Your task to perform on an android device: check out phone information Image 0: 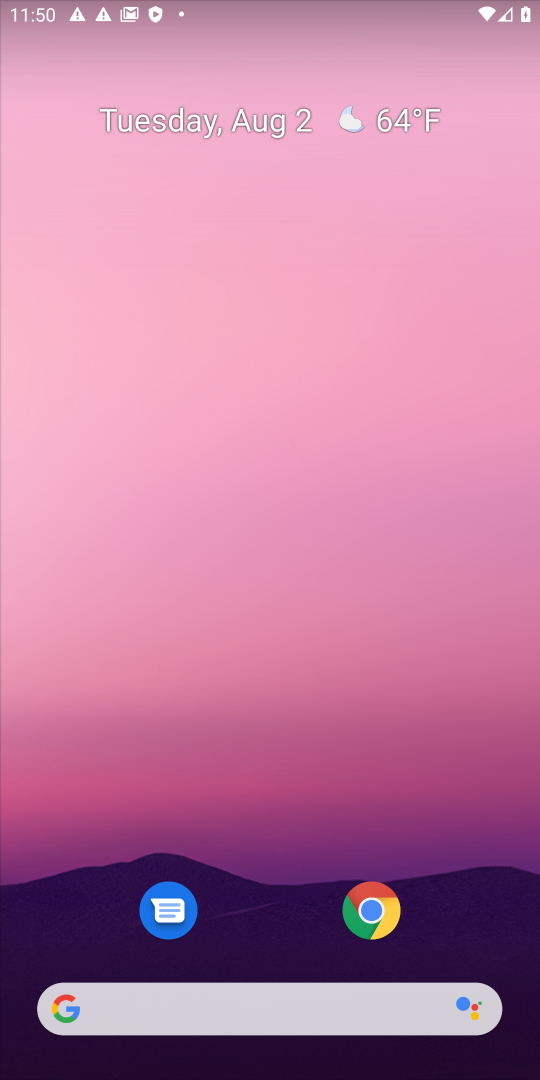
Step 0: drag from (275, 828) to (290, 32)
Your task to perform on an android device: check out phone information Image 1: 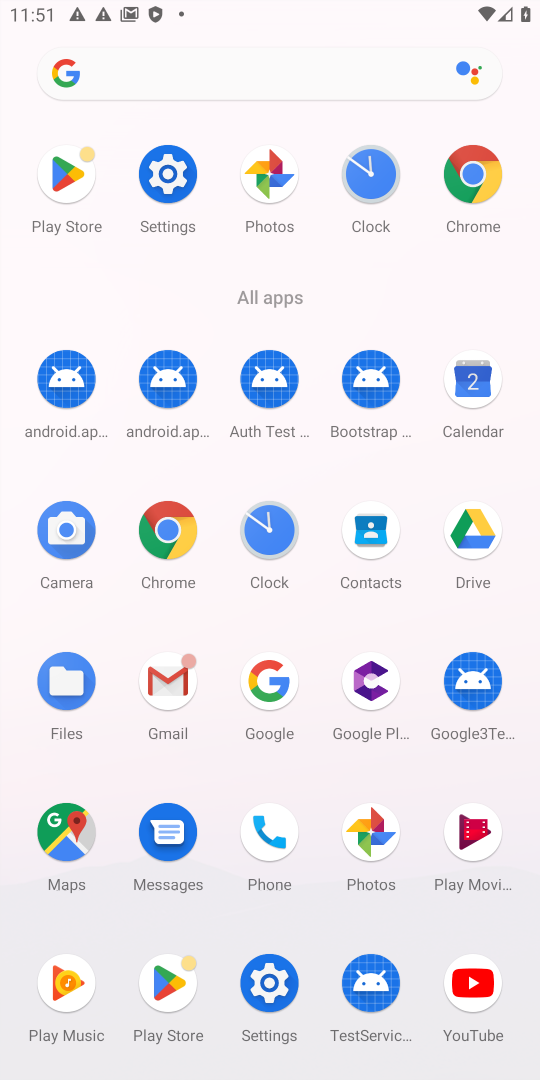
Step 1: click (158, 191)
Your task to perform on an android device: check out phone information Image 2: 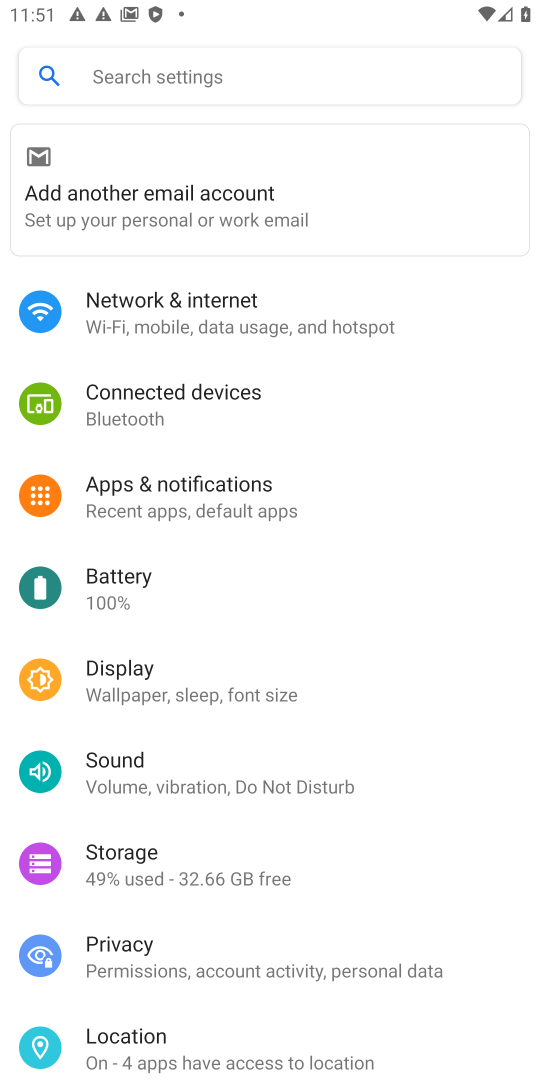
Step 2: drag from (500, 951) to (449, 222)
Your task to perform on an android device: check out phone information Image 3: 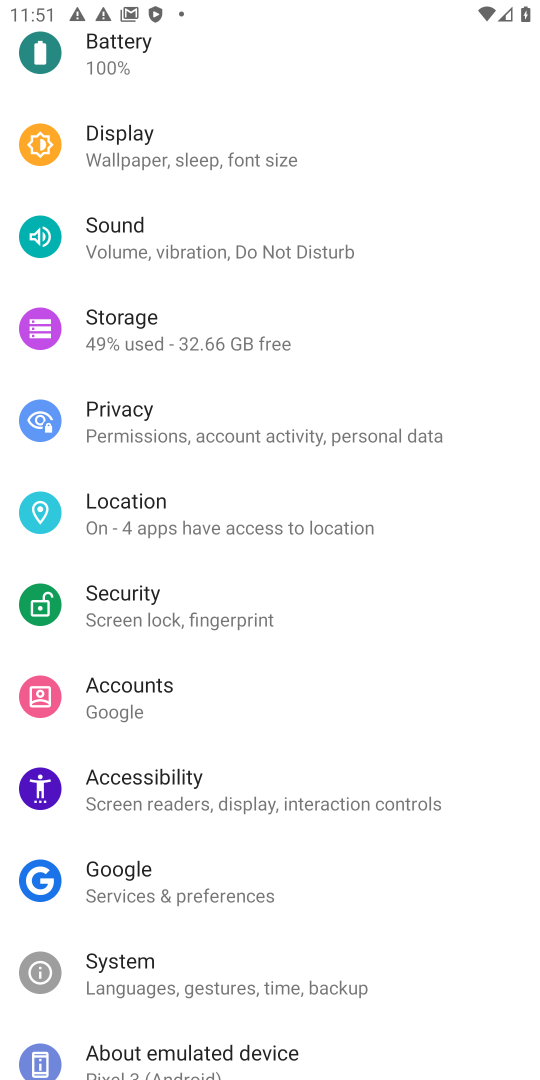
Step 3: drag from (515, 946) to (507, 647)
Your task to perform on an android device: check out phone information Image 4: 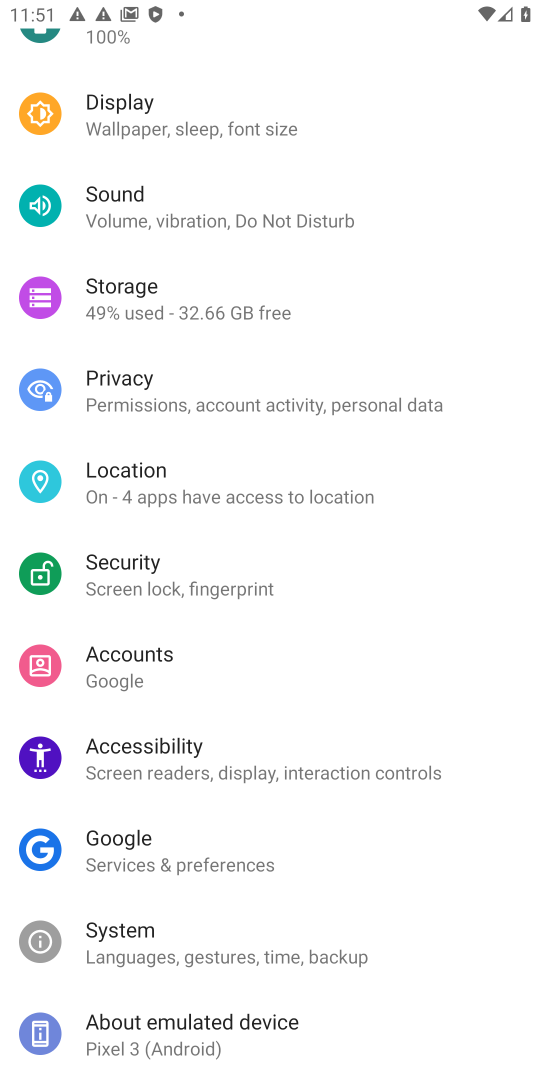
Step 4: click (204, 1033)
Your task to perform on an android device: check out phone information Image 5: 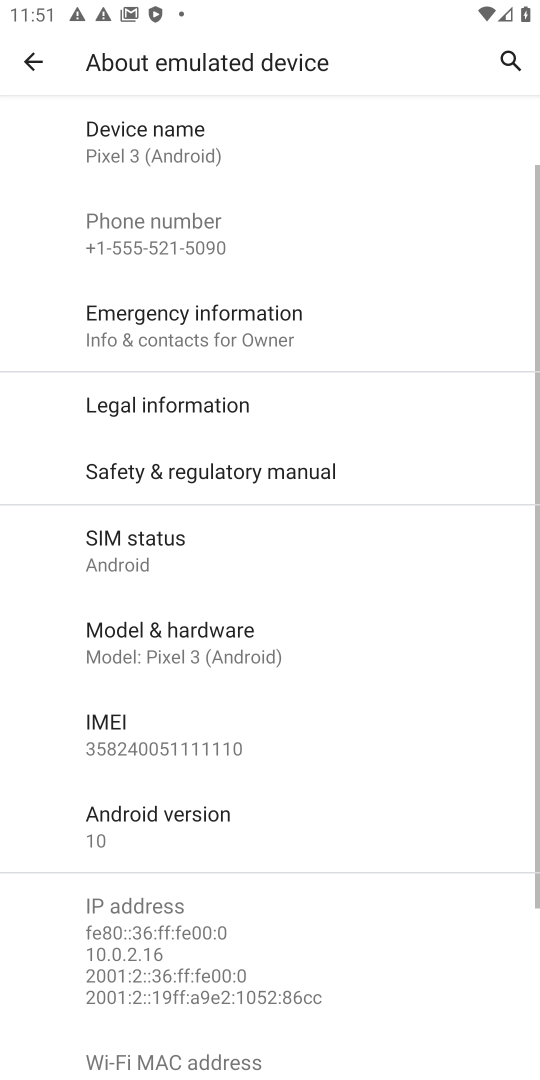
Step 5: task complete